Your task to perform on an android device: Go to Android settings Image 0: 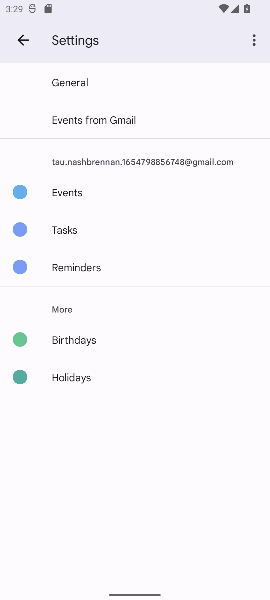
Step 0: press home button
Your task to perform on an android device: Go to Android settings Image 1: 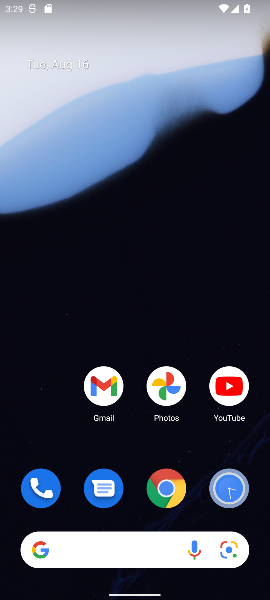
Step 1: drag from (63, 365) to (127, 55)
Your task to perform on an android device: Go to Android settings Image 2: 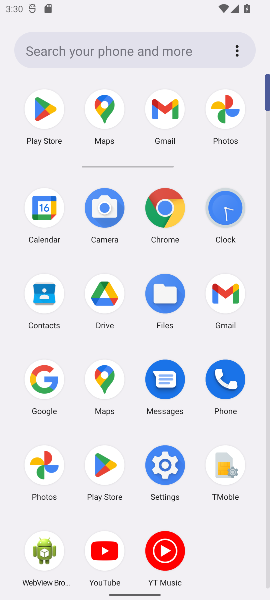
Step 2: click (158, 462)
Your task to perform on an android device: Go to Android settings Image 3: 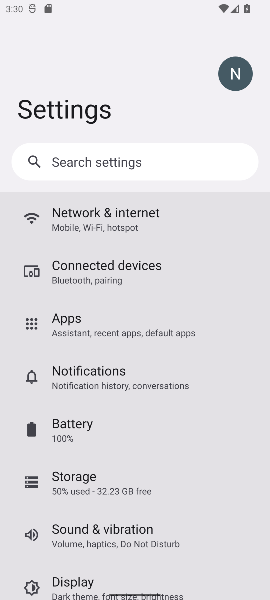
Step 3: task complete